Your task to perform on an android device: allow notifications from all sites in the chrome app Image 0: 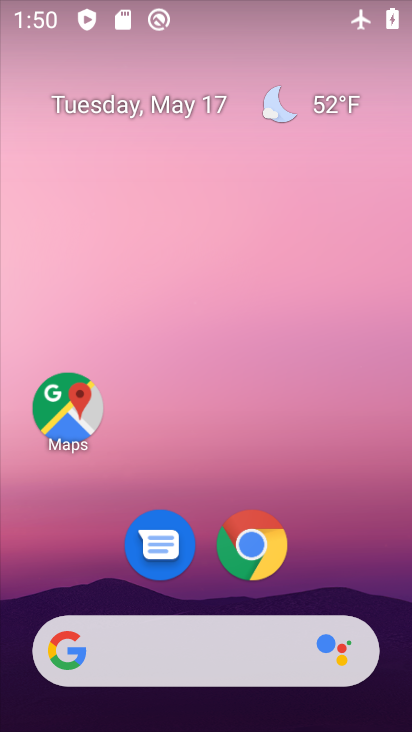
Step 0: drag from (349, 578) to (338, 149)
Your task to perform on an android device: allow notifications from all sites in the chrome app Image 1: 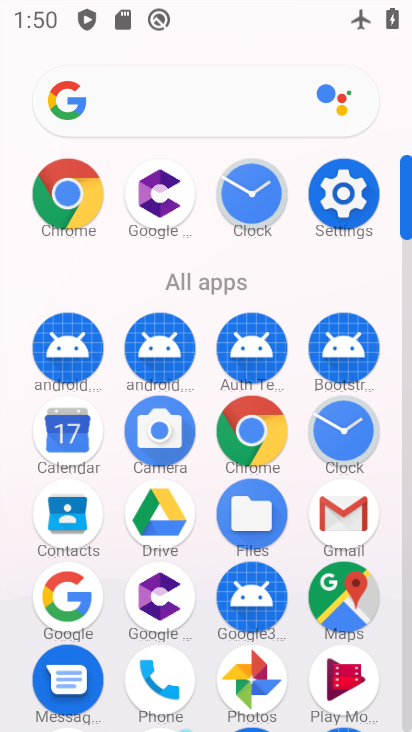
Step 1: click (243, 458)
Your task to perform on an android device: allow notifications from all sites in the chrome app Image 2: 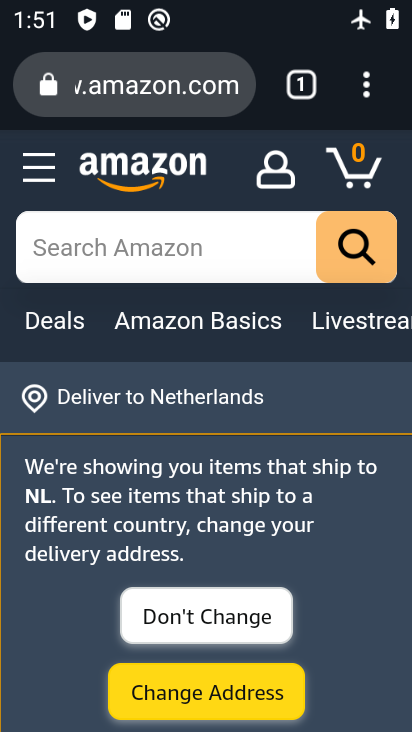
Step 2: click (363, 97)
Your task to perform on an android device: allow notifications from all sites in the chrome app Image 3: 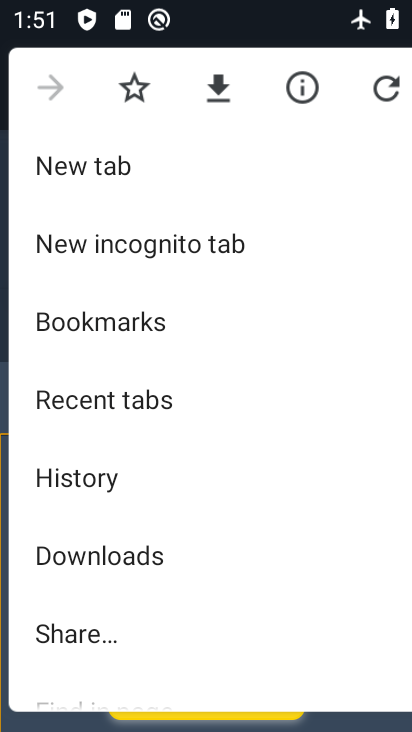
Step 3: drag from (199, 602) to (206, 426)
Your task to perform on an android device: allow notifications from all sites in the chrome app Image 4: 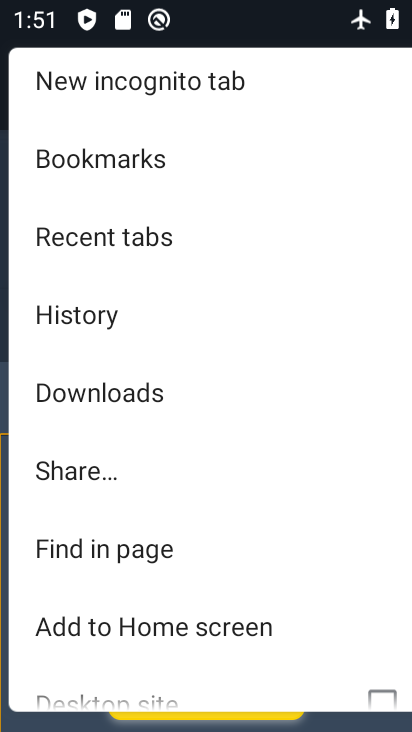
Step 4: drag from (204, 591) to (225, 366)
Your task to perform on an android device: allow notifications from all sites in the chrome app Image 5: 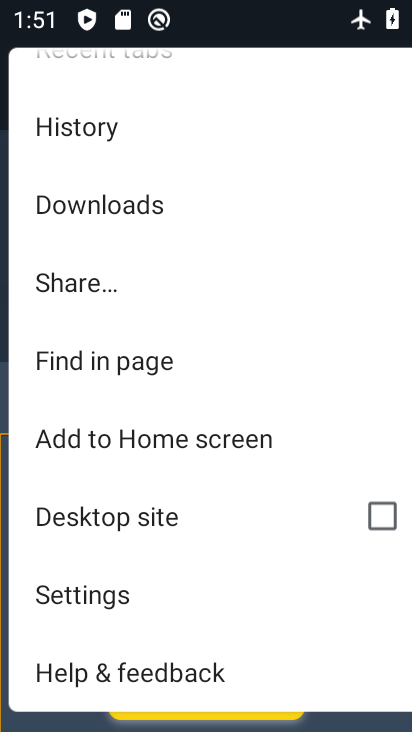
Step 5: click (116, 605)
Your task to perform on an android device: allow notifications from all sites in the chrome app Image 6: 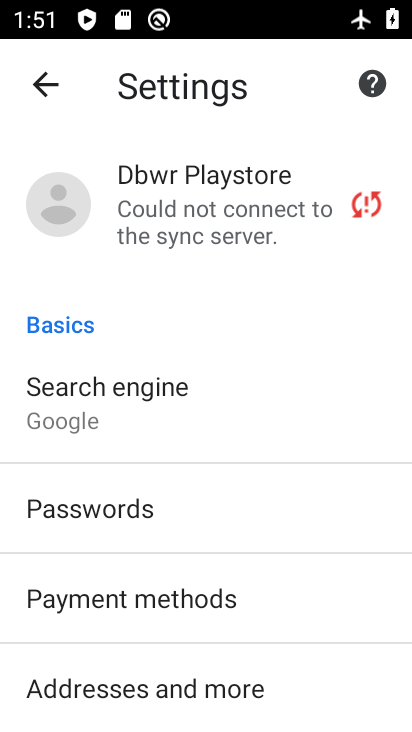
Step 6: drag from (299, 638) to (303, 565)
Your task to perform on an android device: allow notifications from all sites in the chrome app Image 7: 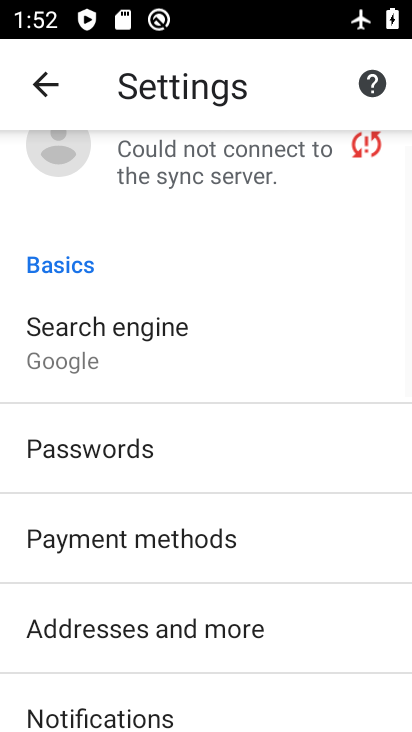
Step 7: drag from (303, 658) to (307, 547)
Your task to perform on an android device: allow notifications from all sites in the chrome app Image 8: 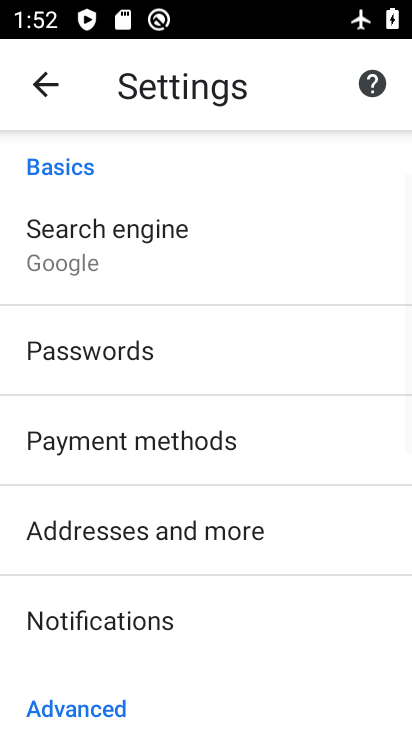
Step 8: drag from (302, 646) to (310, 559)
Your task to perform on an android device: allow notifications from all sites in the chrome app Image 9: 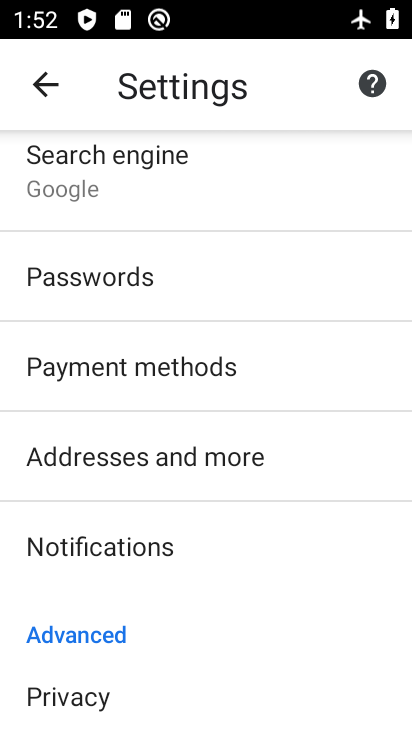
Step 9: drag from (310, 651) to (323, 566)
Your task to perform on an android device: allow notifications from all sites in the chrome app Image 10: 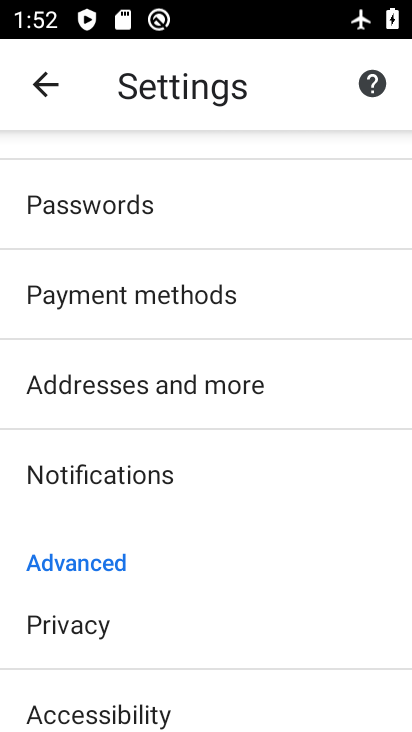
Step 10: drag from (322, 657) to (320, 574)
Your task to perform on an android device: allow notifications from all sites in the chrome app Image 11: 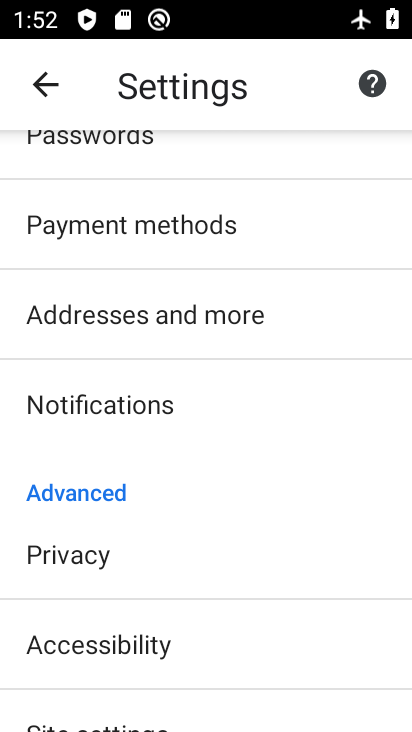
Step 11: click (158, 402)
Your task to perform on an android device: allow notifications from all sites in the chrome app Image 12: 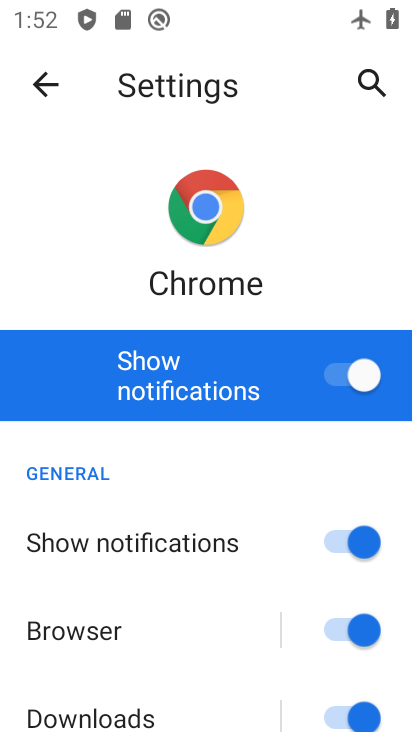
Step 12: task complete